Your task to perform on an android device: see tabs open on other devices in the chrome app Image 0: 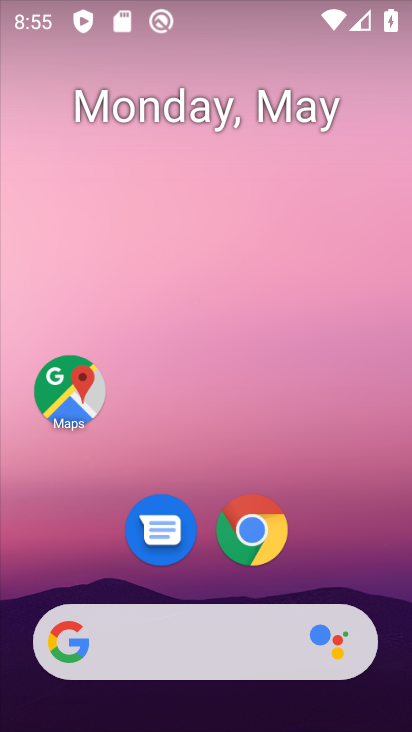
Step 0: drag from (337, 506) to (252, 28)
Your task to perform on an android device: see tabs open on other devices in the chrome app Image 1: 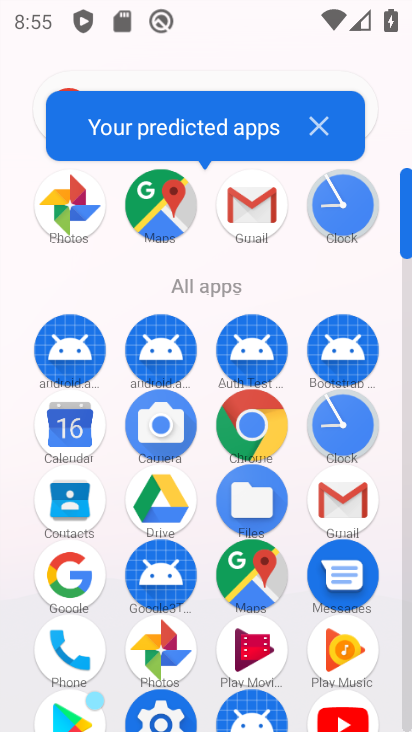
Step 1: drag from (19, 564) to (14, 260)
Your task to perform on an android device: see tabs open on other devices in the chrome app Image 2: 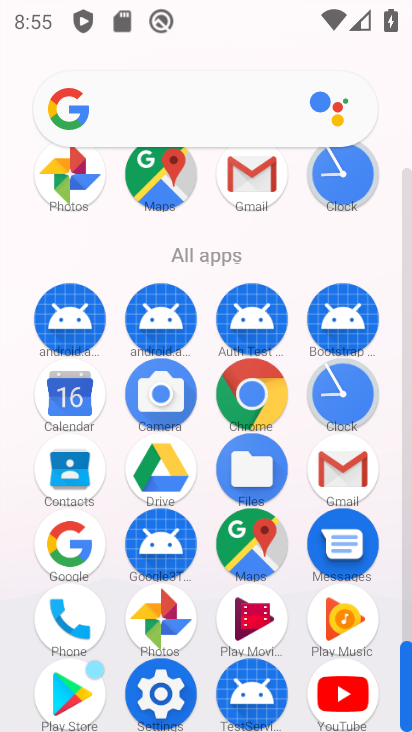
Step 2: click (249, 390)
Your task to perform on an android device: see tabs open on other devices in the chrome app Image 3: 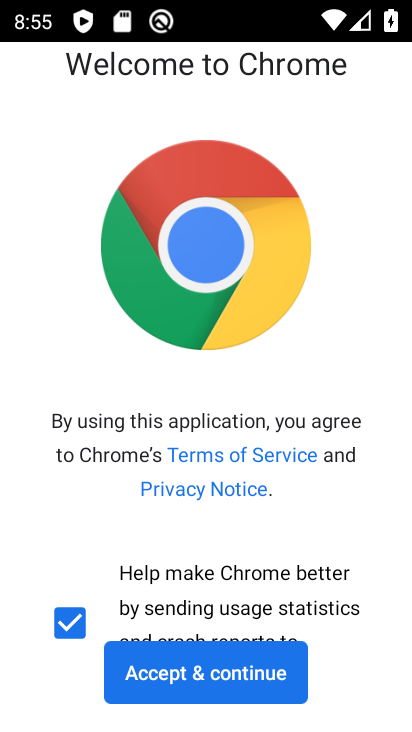
Step 3: click (174, 667)
Your task to perform on an android device: see tabs open on other devices in the chrome app Image 4: 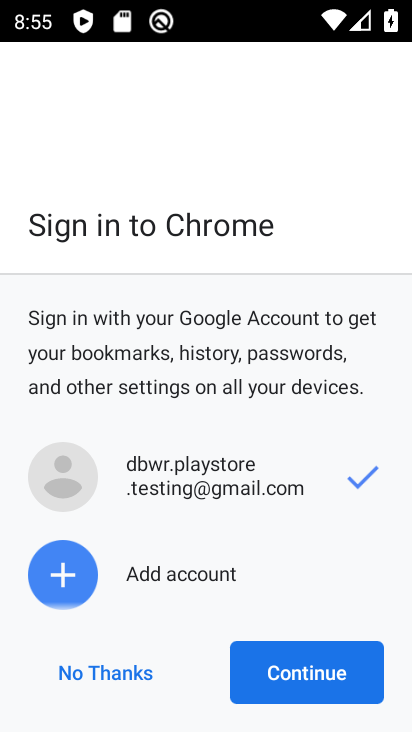
Step 4: click (272, 673)
Your task to perform on an android device: see tabs open on other devices in the chrome app Image 5: 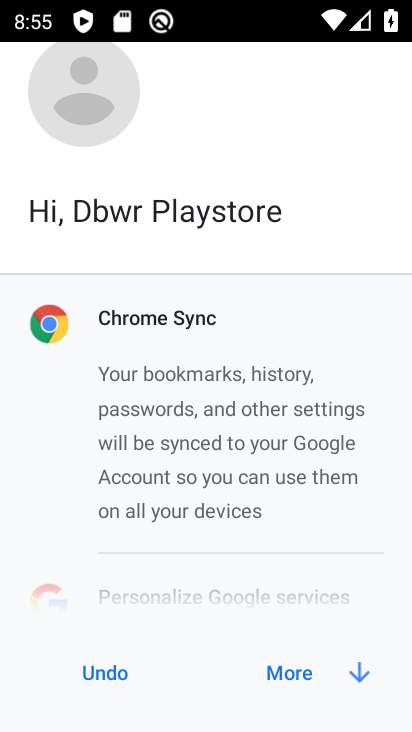
Step 5: click (305, 672)
Your task to perform on an android device: see tabs open on other devices in the chrome app Image 6: 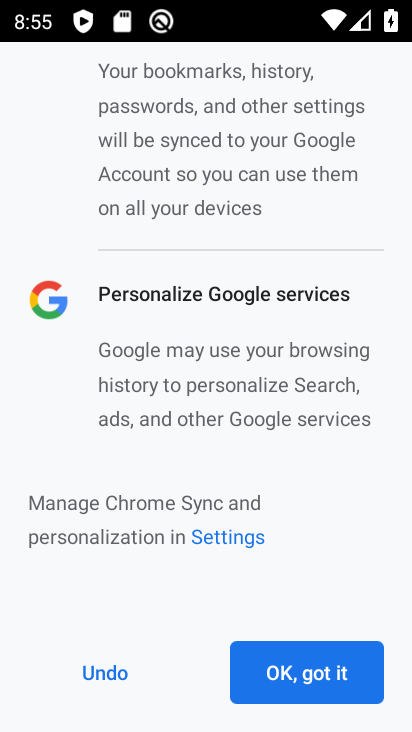
Step 6: click (305, 672)
Your task to perform on an android device: see tabs open on other devices in the chrome app Image 7: 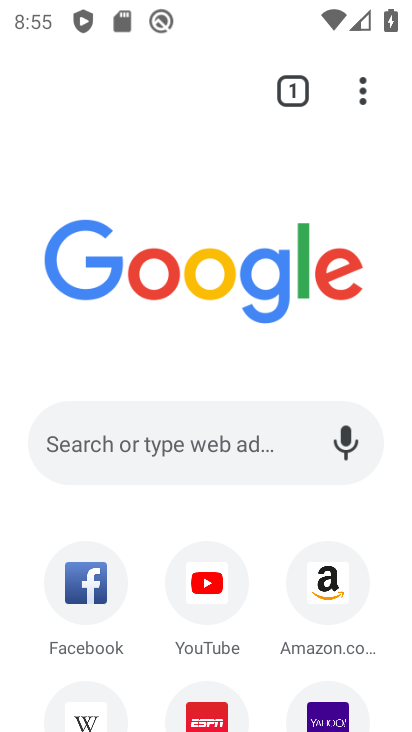
Step 7: task complete